Your task to perform on an android device: When is my next appointment? Image 0: 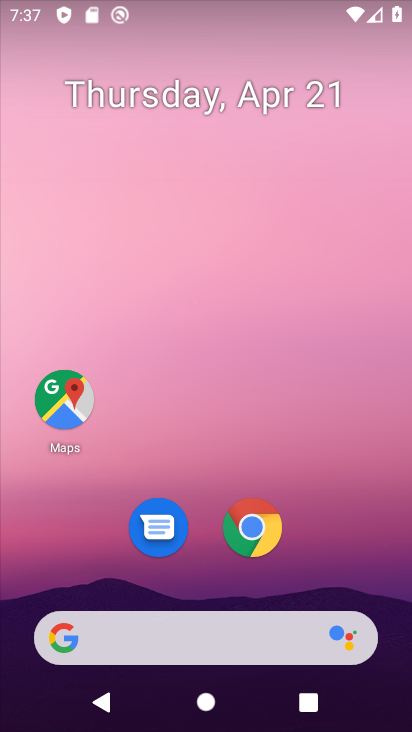
Step 0: drag from (316, 570) to (281, 87)
Your task to perform on an android device: When is my next appointment? Image 1: 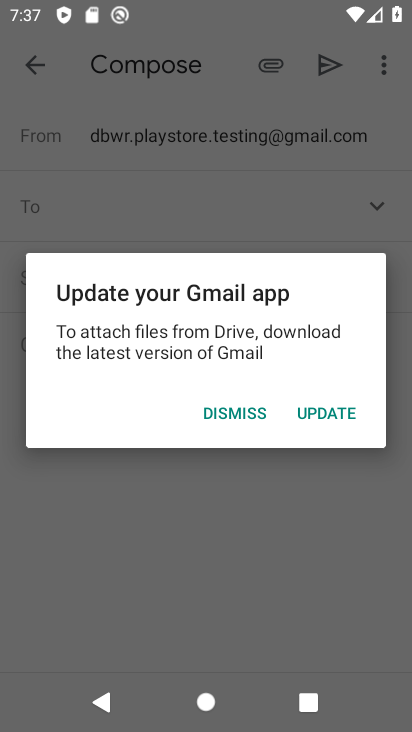
Step 1: press home button
Your task to perform on an android device: When is my next appointment? Image 2: 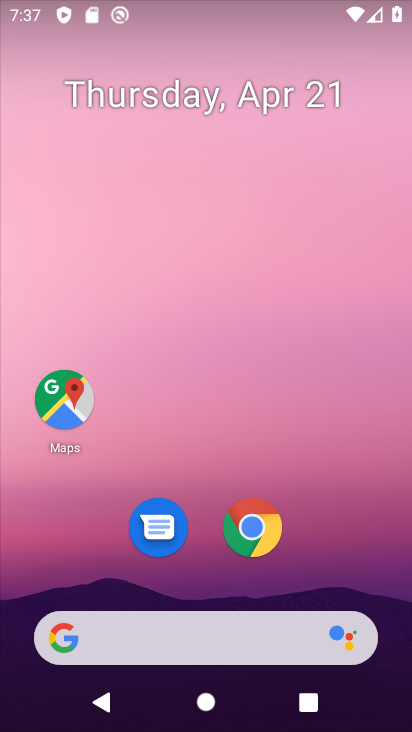
Step 2: drag from (333, 623) to (300, 177)
Your task to perform on an android device: When is my next appointment? Image 3: 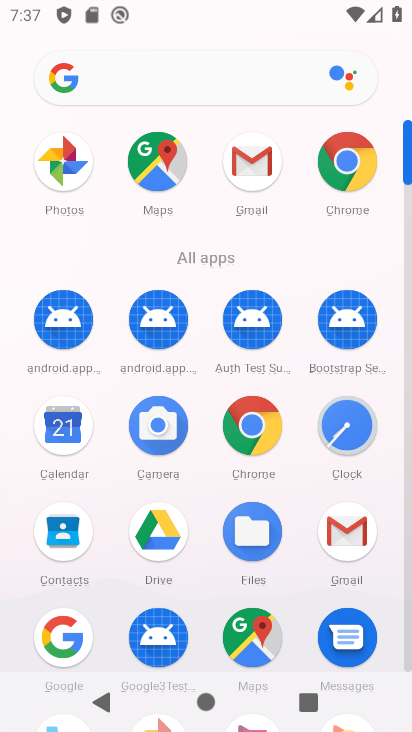
Step 3: click (69, 434)
Your task to perform on an android device: When is my next appointment? Image 4: 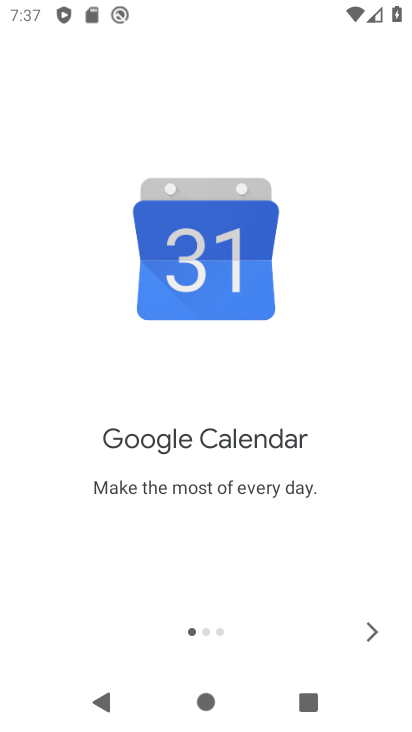
Step 4: click (365, 633)
Your task to perform on an android device: When is my next appointment? Image 5: 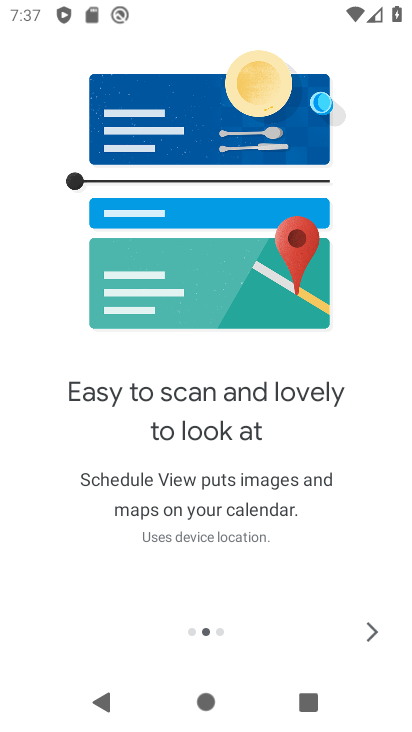
Step 5: click (365, 635)
Your task to perform on an android device: When is my next appointment? Image 6: 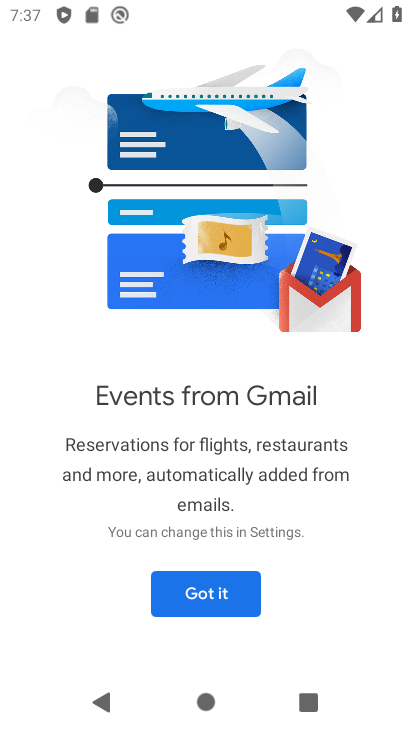
Step 6: click (237, 591)
Your task to perform on an android device: When is my next appointment? Image 7: 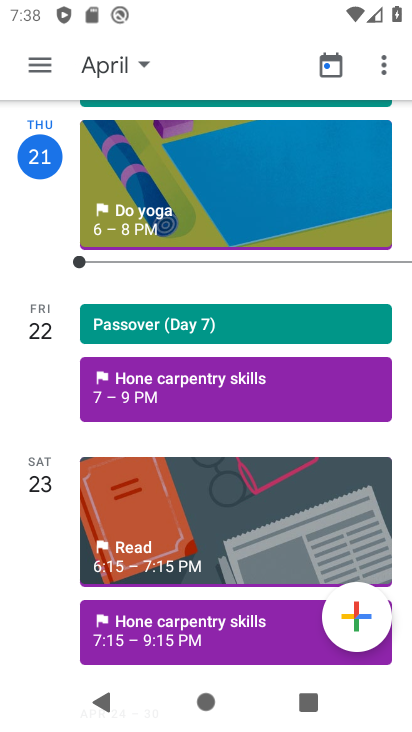
Step 7: click (146, 69)
Your task to perform on an android device: When is my next appointment? Image 8: 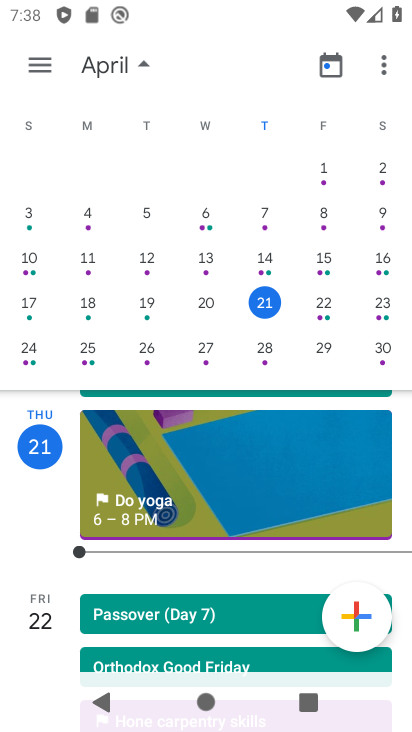
Step 8: task complete